Your task to perform on an android device: search for starred emails in the gmail app Image 0: 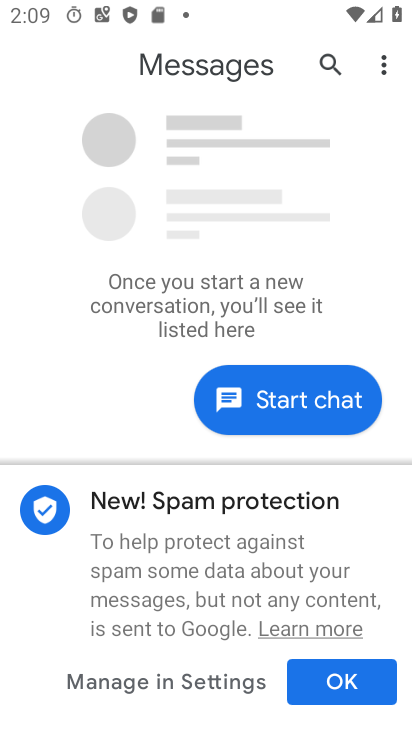
Step 0: press home button
Your task to perform on an android device: search for starred emails in the gmail app Image 1: 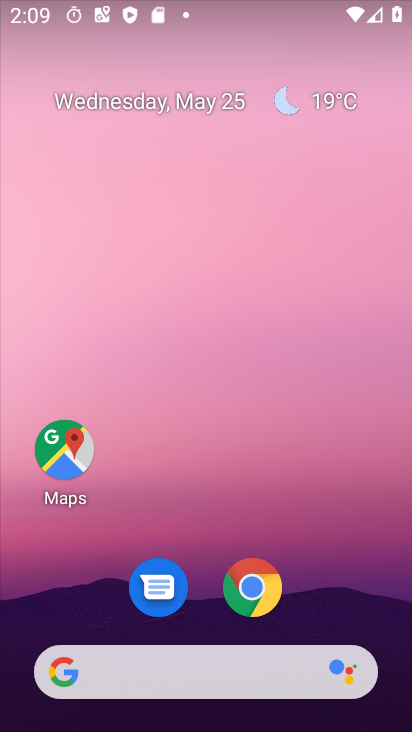
Step 1: drag from (317, 575) to (366, 86)
Your task to perform on an android device: search for starred emails in the gmail app Image 2: 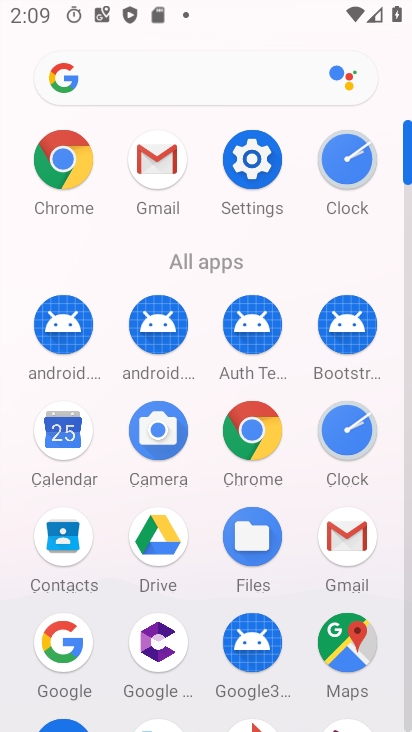
Step 2: click (159, 162)
Your task to perform on an android device: search for starred emails in the gmail app Image 3: 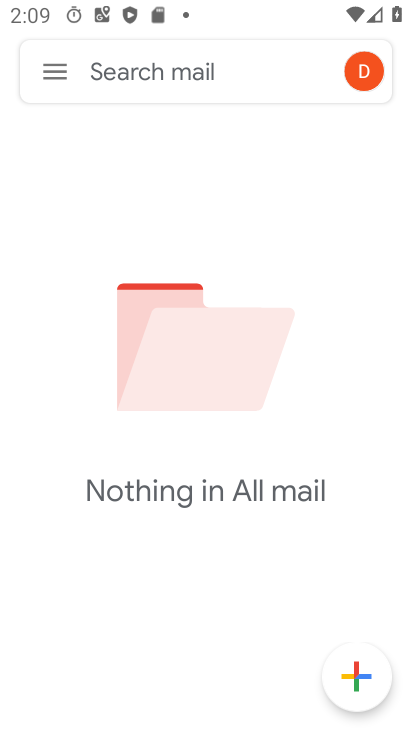
Step 3: click (63, 76)
Your task to perform on an android device: search for starred emails in the gmail app Image 4: 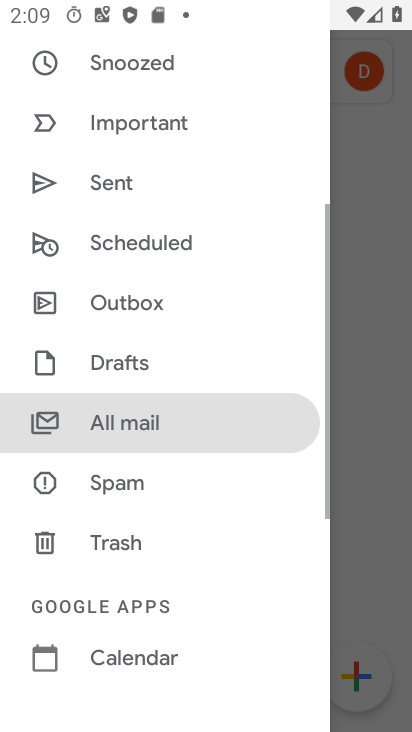
Step 4: drag from (159, 229) to (194, 534)
Your task to perform on an android device: search for starred emails in the gmail app Image 5: 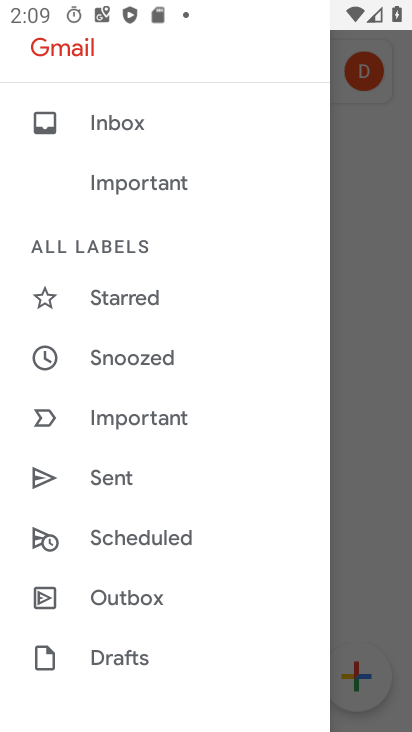
Step 5: drag from (162, 205) to (162, 384)
Your task to perform on an android device: search for starred emails in the gmail app Image 6: 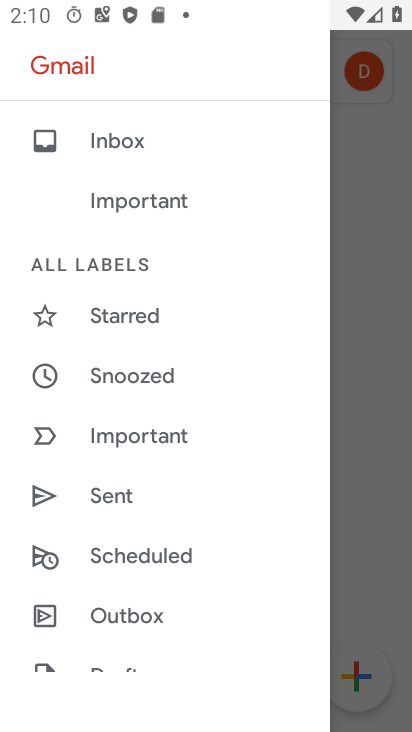
Step 6: click (164, 316)
Your task to perform on an android device: search for starred emails in the gmail app Image 7: 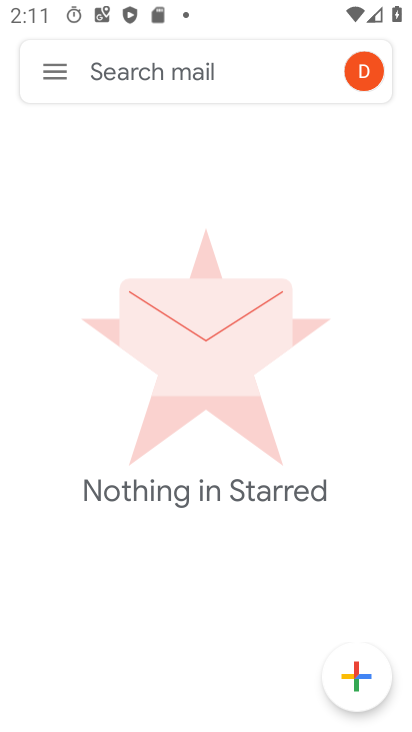
Step 7: task complete